Your task to perform on an android device: Go to Google Image 0: 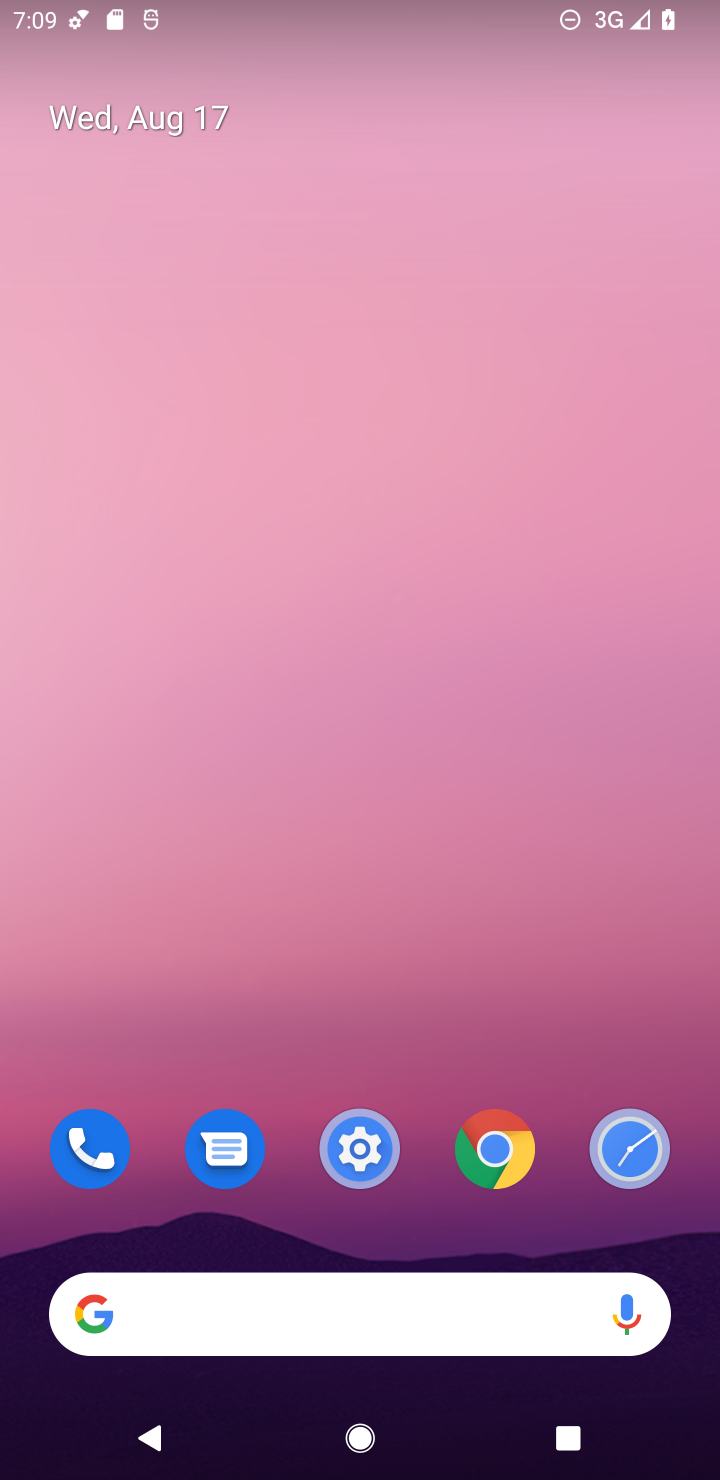
Step 0: drag from (434, 1226) to (301, 556)
Your task to perform on an android device: Go to Google Image 1: 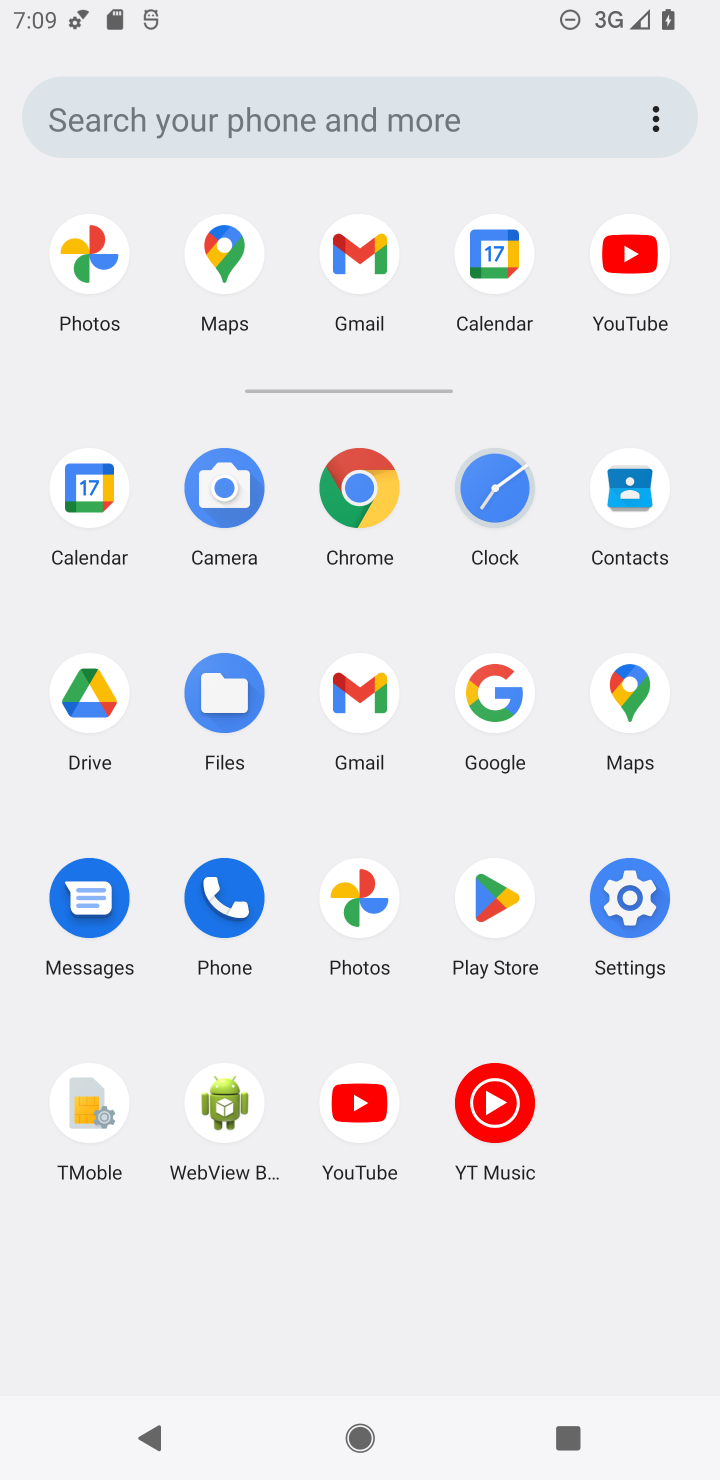
Step 1: click (506, 707)
Your task to perform on an android device: Go to Google Image 2: 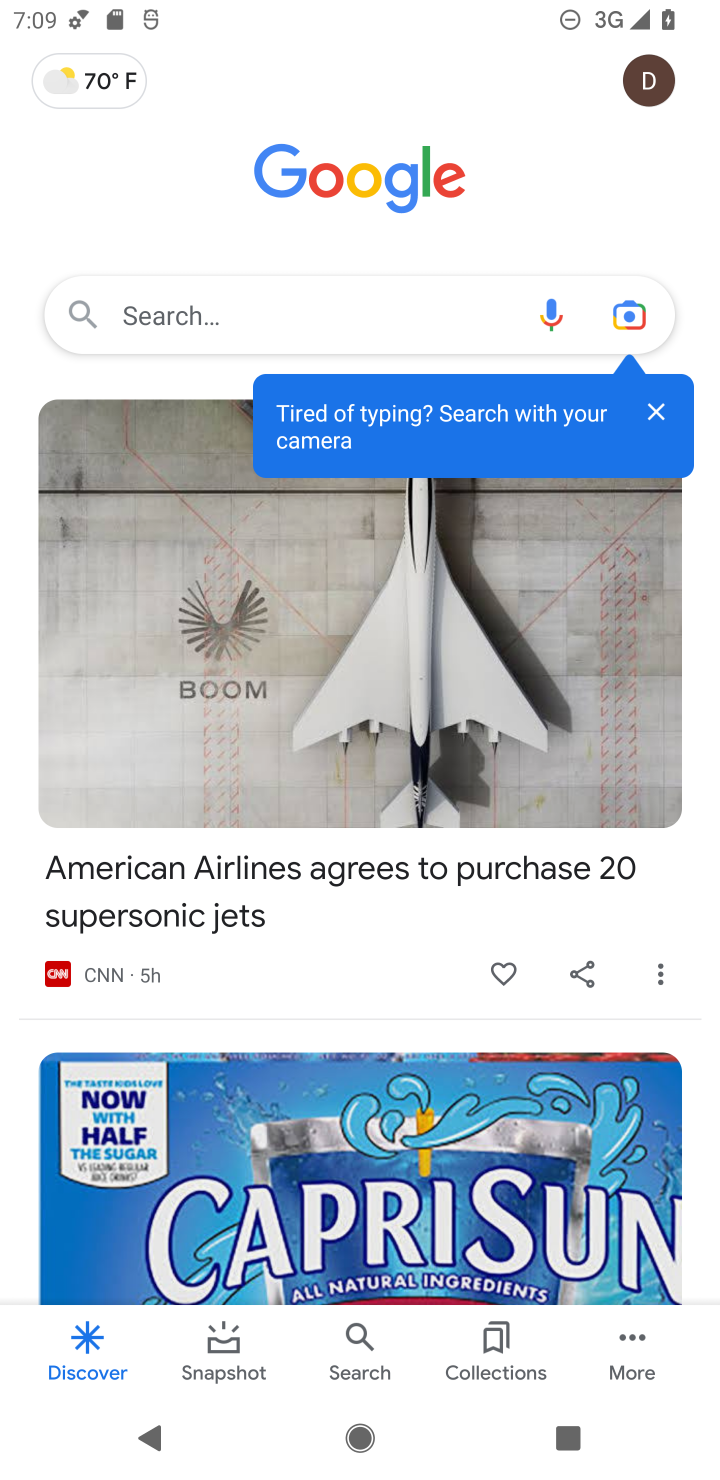
Step 2: click (131, 302)
Your task to perform on an android device: Go to Google Image 3: 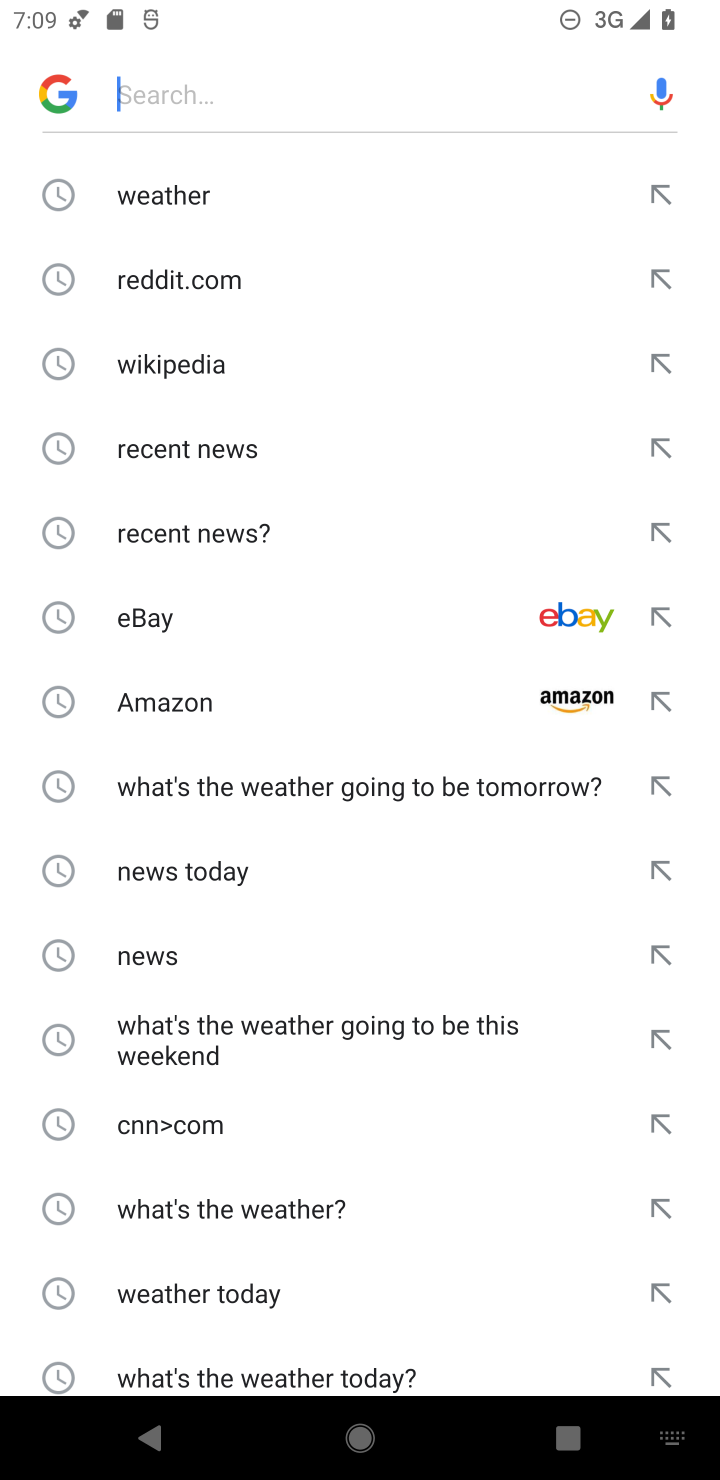
Step 3: task complete